Your task to perform on an android device: Go to battery settings Image 0: 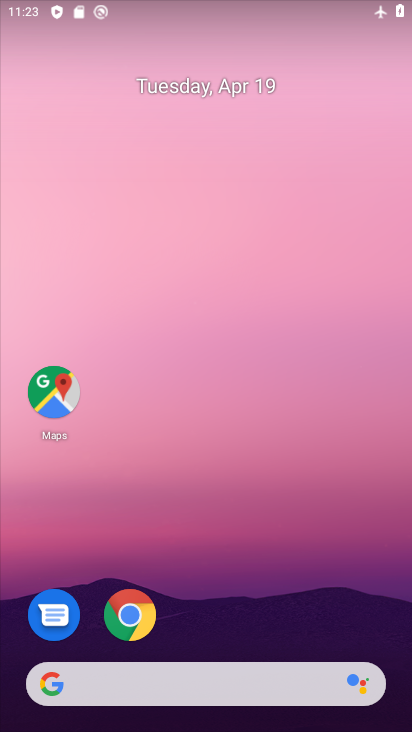
Step 0: drag from (220, 600) to (232, 110)
Your task to perform on an android device: Go to battery settings Image 1: 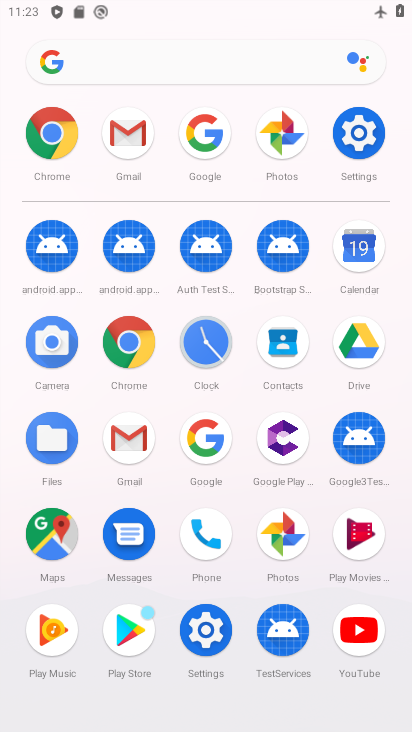
Step 1: click (367, 126)
Your task to perform on an android device: Go to battery settings Image 2: 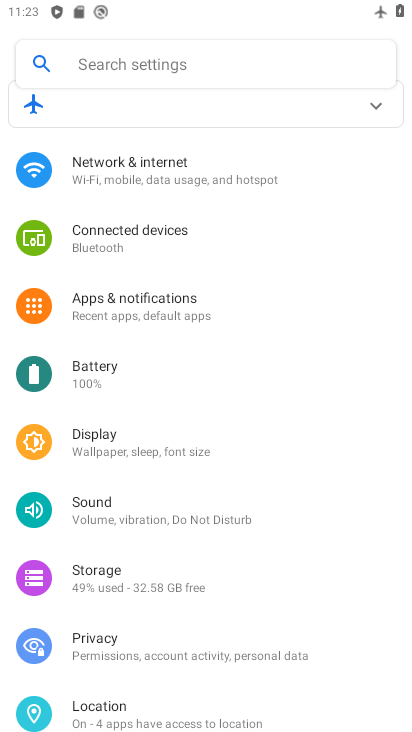
Step 2: click (114, 363)
Your task to perform on an android device: Go to battery settings Image 3: 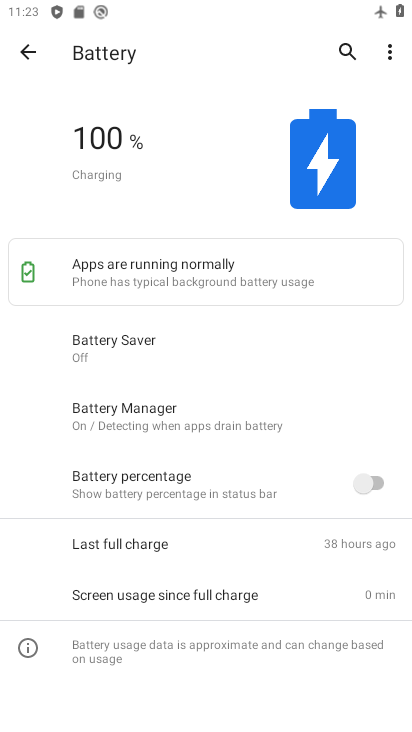
Step 3: click (381, 41)
Your task to perform on an android device: Go to battery settings Image 4: 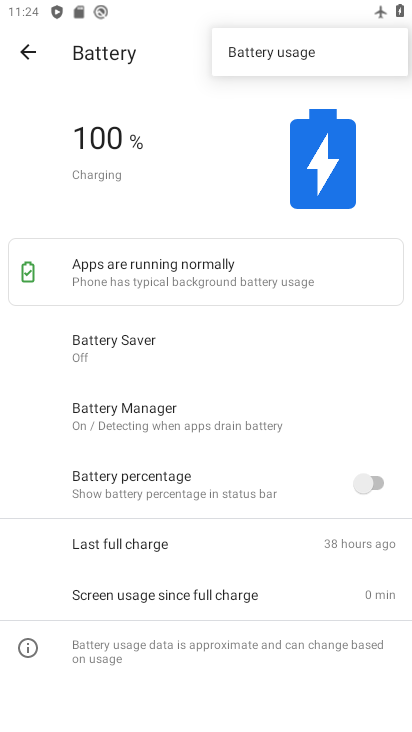
Step 4: click (338, 365)
Your task to perform on an android device: Go to battery settings Image 5: 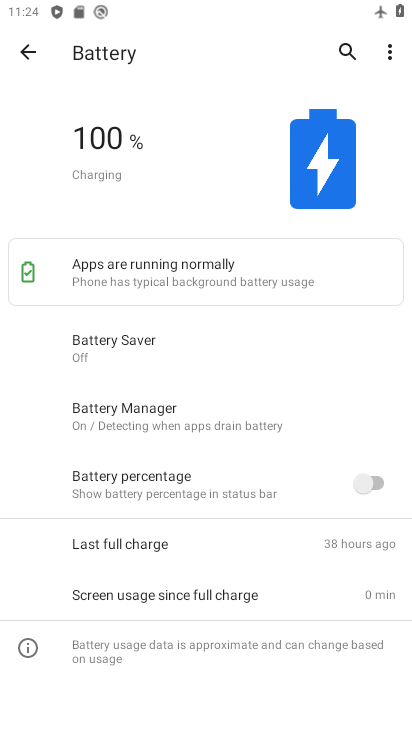
Step 5: task complete